Your task to perform on an android device: turn off notifications in google photos Image 0: 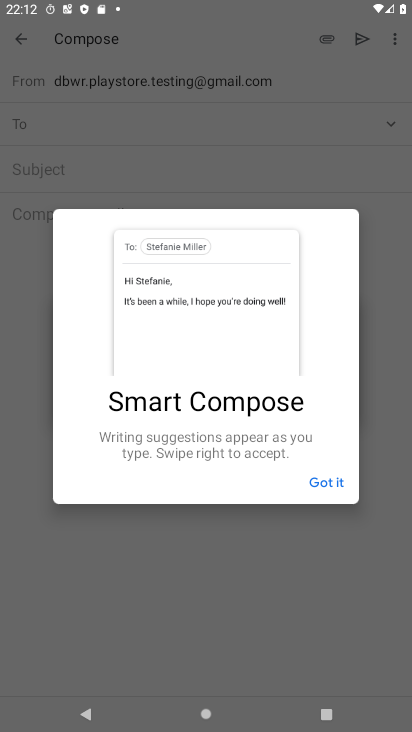
Step 0: press home button
Your task to perform on an android device: turn off notifications in google photos Image 1: 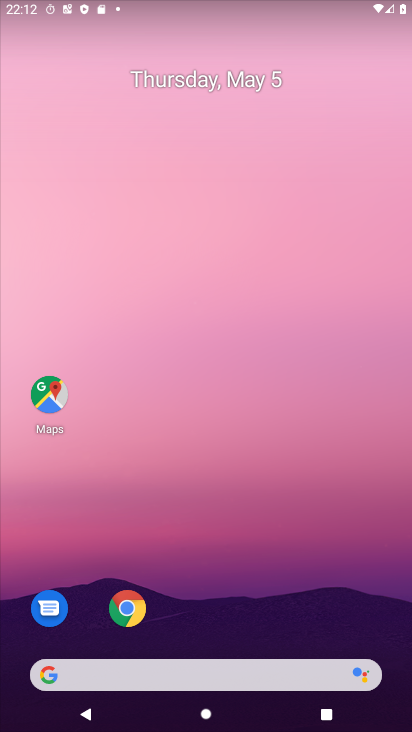
Step 1: drag from (224, 670) to (257, 124)
Your task to perform on an android device: turn off notifications in google photos Image 2: 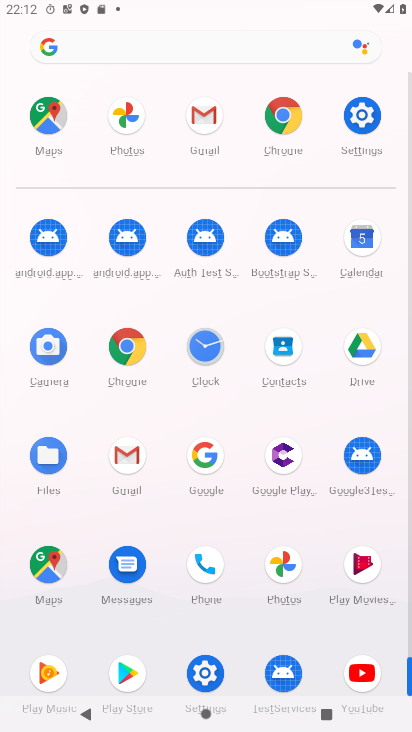
Step 2: click (291, 568)
Your task to perform on an android device: turn off notifications in google photos Image 3: 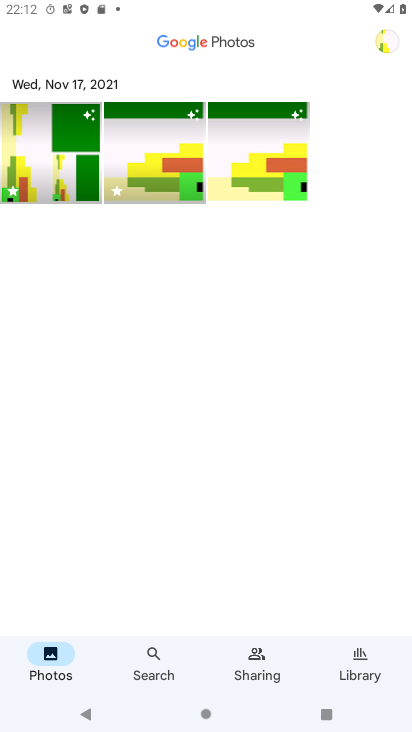
Step 3: click (383, 36)
Your task to perform on an android device: turn off notifications in google photos Image 4: 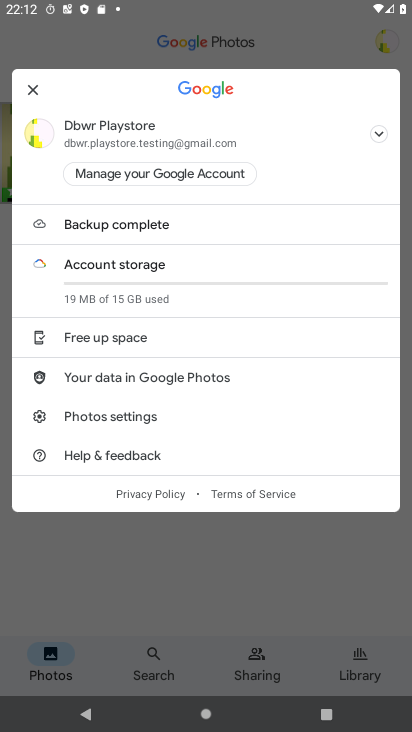
Step 4: click (132, 413)
Your task to perform on an android device: turn off notifications in google photos Image 5: 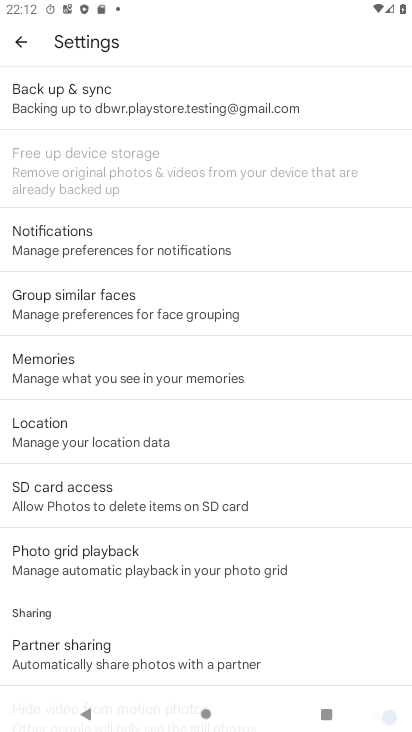
Step 5: click (217, 247)
Your task to perform on an android device: turn off notifications in google photos Image 6: 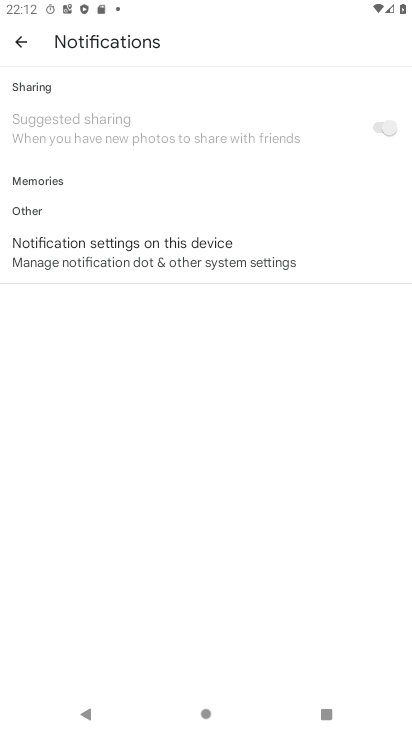
Step 6: click (162, 266)
Your task to perform on an android device: turn off notifications in google photos Image 7: 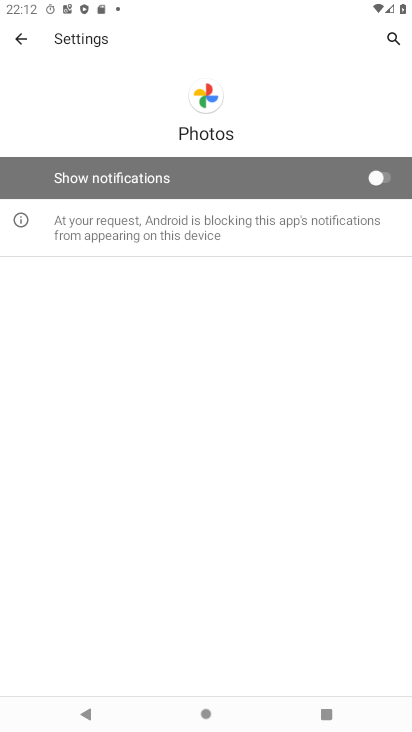
Step 7: task complete